Your task to perform on an android device: Search for seafood restaurants on Google Maps Image 0: 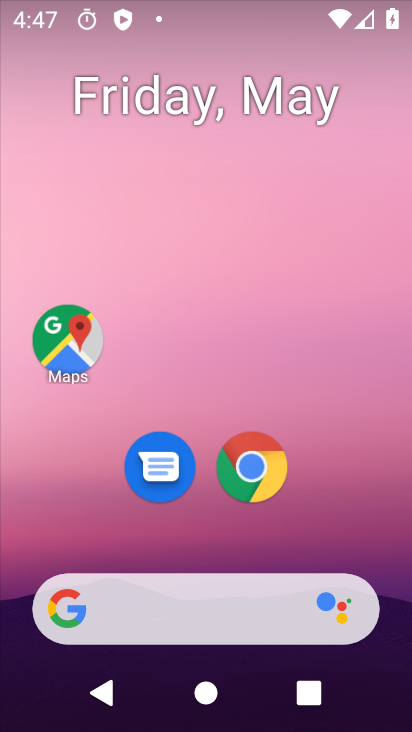
Step 0: click (62, 344)
Your task to perform on an android device: Search for seafood restaurants on Google Maps Image 1: 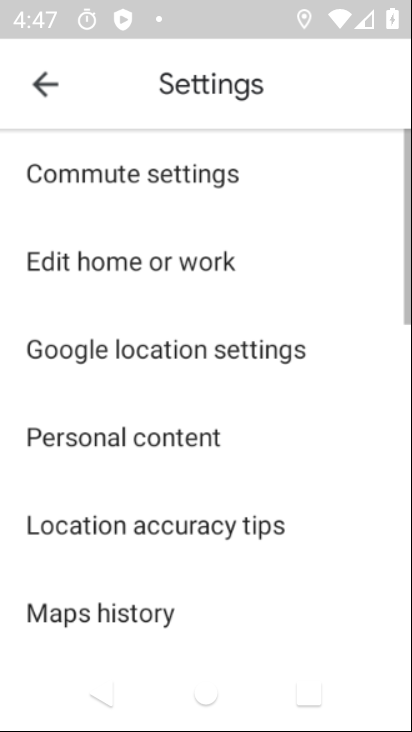
Step 1: click (63, 81)
Your task to perform on an android device: Search for seafood restaurants on Google Maps Image 2: 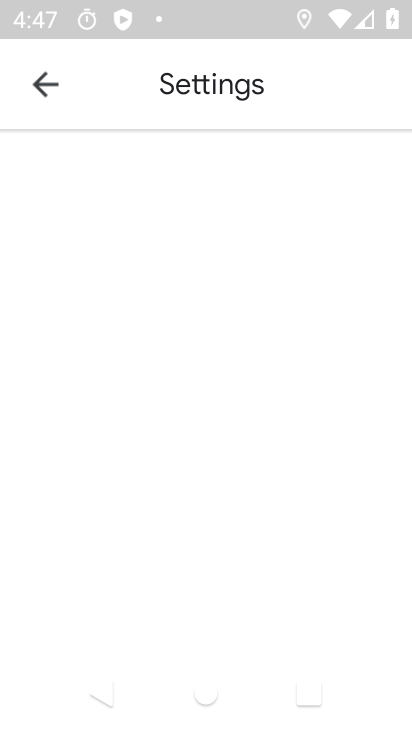
Step 2: click (45, 95)
Your task to perform on an android device: Search for seafood restaurants on Google Maps Image 3: 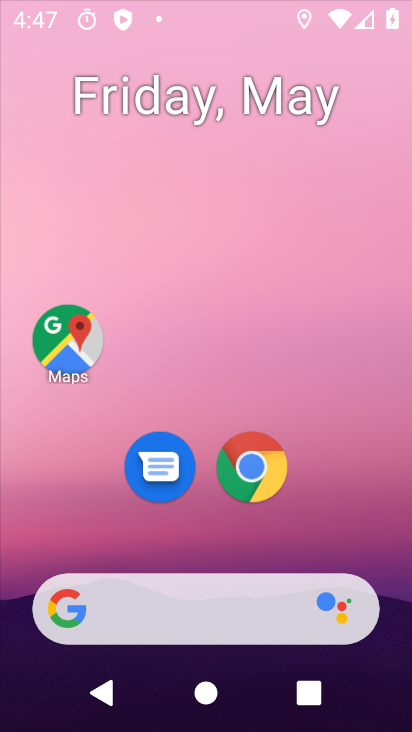
Step 3: click (123, 81)
Your task to perform on an android device: Search for seafood restaurants on Google Maps Image 4: 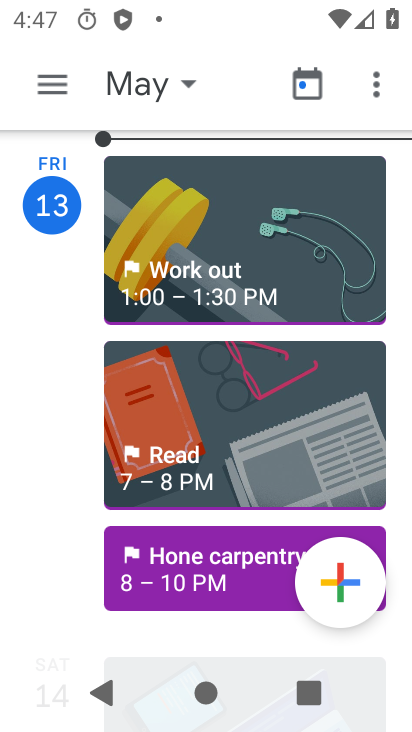
Step 4: click (63, 327)
Your task to perform on an android device: Search for seafood restaurants on Google Maps Image 5: 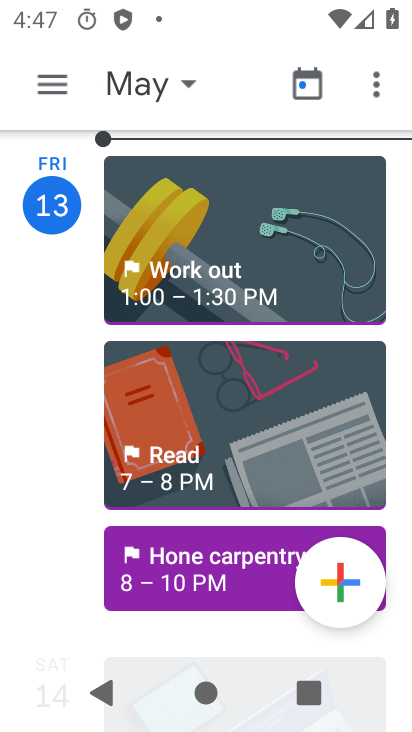
Step 5: press home button
Your task to perform on an android device: Search for seafood restaurants on Google Maps Image 6: 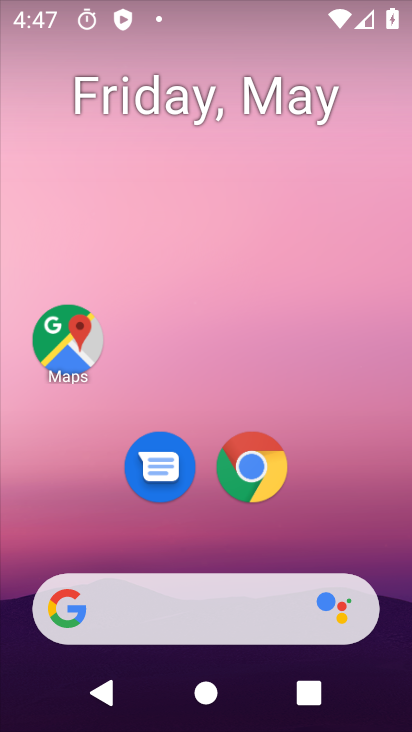
Step 6: click (84, 351)
Your task to perform on an android device: Search for seafood restaurants on Google Maps Image 7: 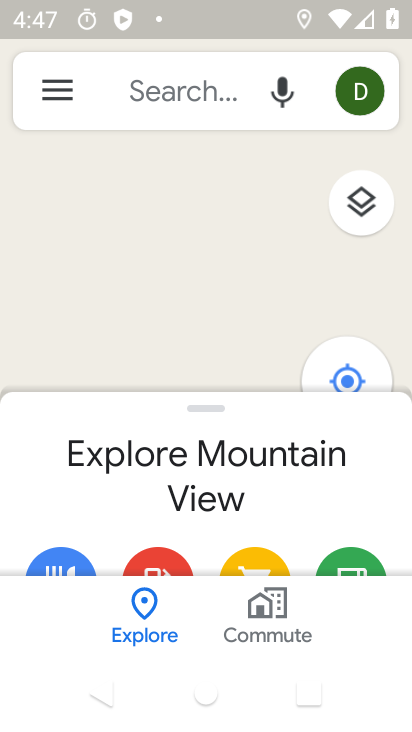
Step 7: click (189, 76)
Your task to perform on an android device: Search for seafood restaurants on Google Maps Image 8: 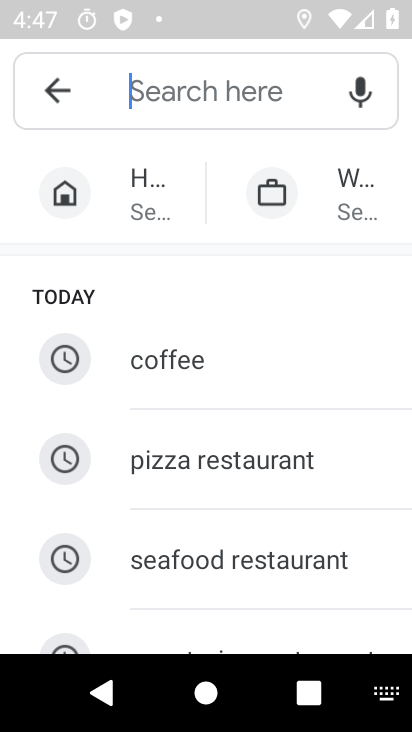
Step 8: type "seafood restaurants"
Your task to perform on an android device: Search for seafood restaurants on Google Maps Image 9: 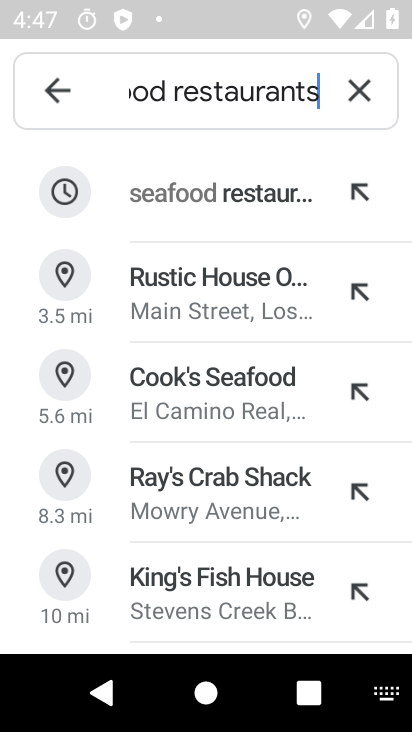
Step 9: press enter
Your task to perform on an android device: Search for seafood restaurants on Google Maps Image 10: 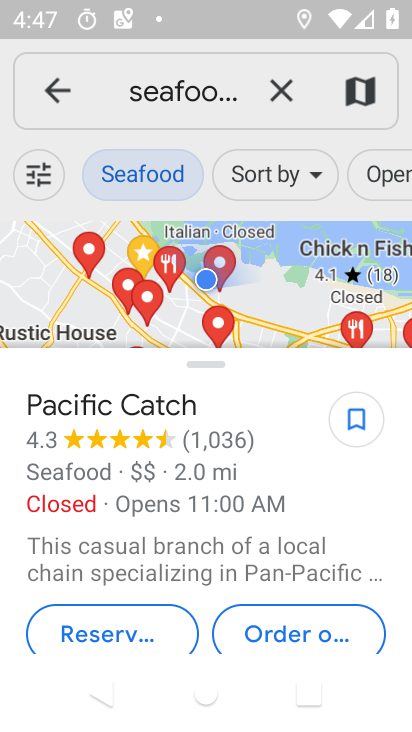
Step 10: task complete